Your task to perform on an android device: change alarm snooze length Image 0: 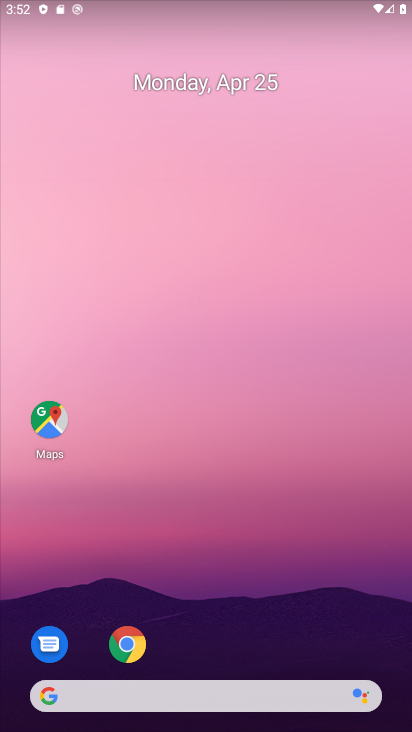
Step 0: drag from (200, 643) to (225, 162)
Your task to perform on an android device: change alarm snooze length Image 1: 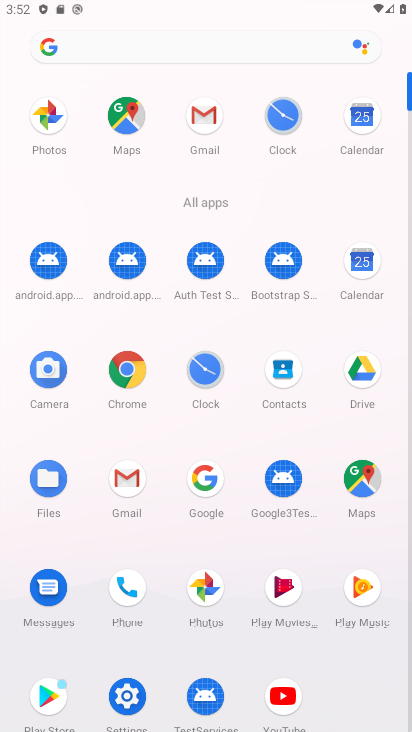
Step 1: click (290, 112)
Your task to perform on an android device: change alarm snooze length Image 2: 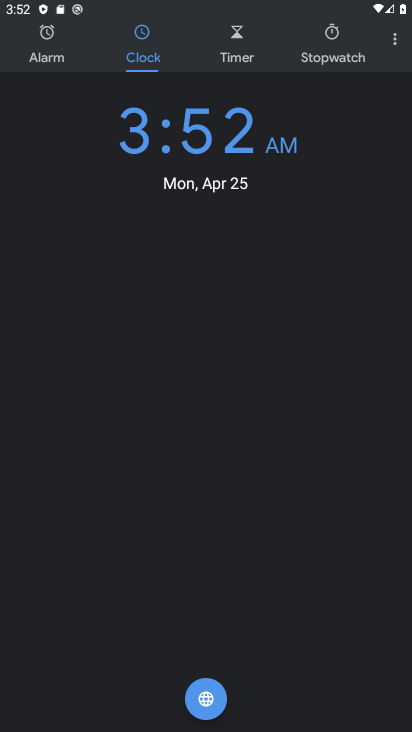
Step 2: click (391, 38)
Your task to perform on an android device: change alarm snooze length Image 3: 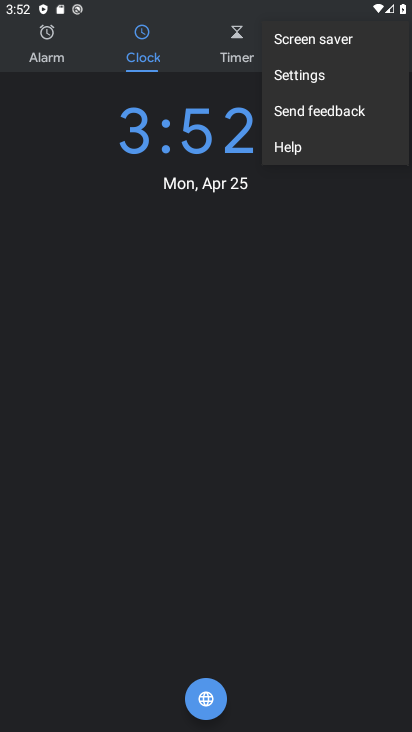
Step 3: click (334, 76)
Your task to perform on an android device: change alarm snooze length Image 4: 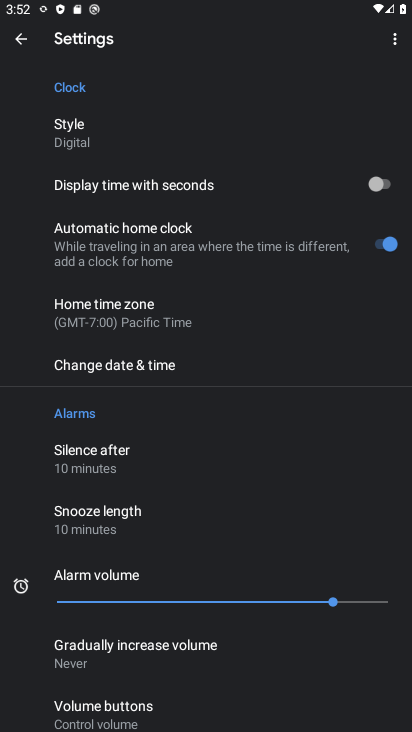
Step 4: click (134, 523)
Your task to perform on an android device: change alarm snooze length Image 5: 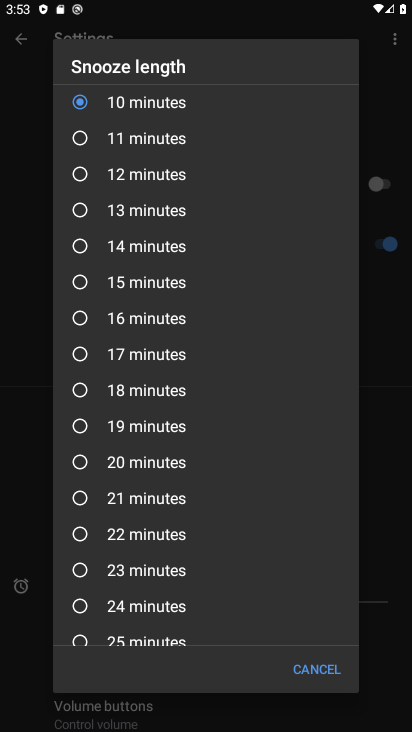
Step 5: click (163, 541)
Your task to perform on an android device: change alarm snooze length Image 6: 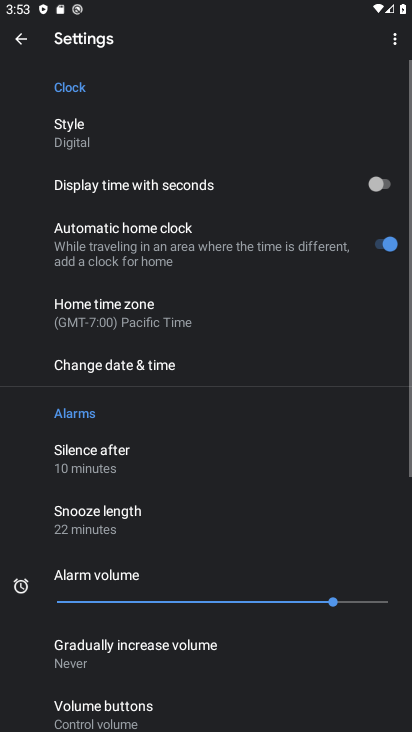
Step 6: task complete